Your task to perform on an android device: Open battery settings Image 0: 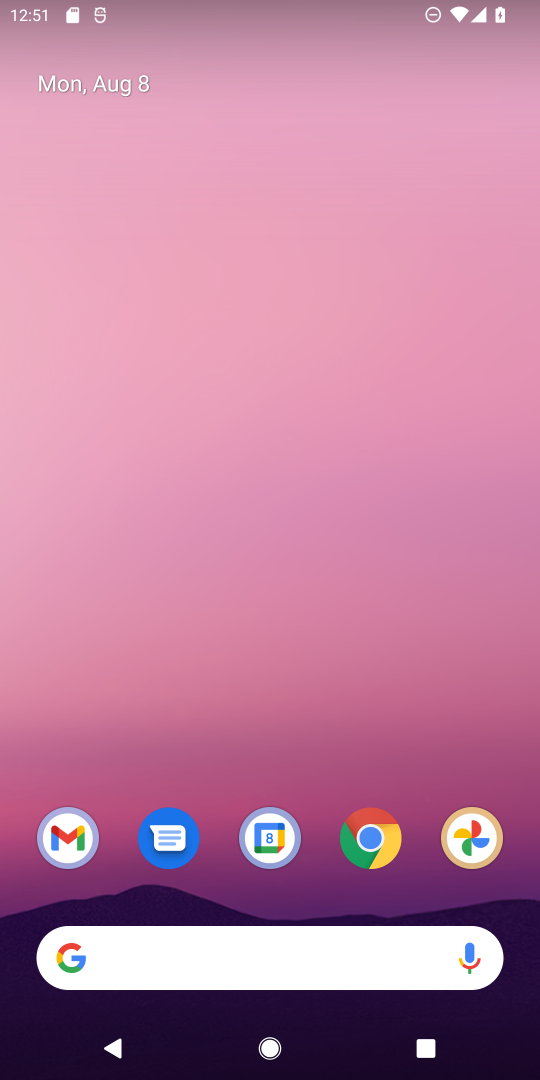
Step 0: press home button
Your task to perform on an android device: Open battery settings Image 1: 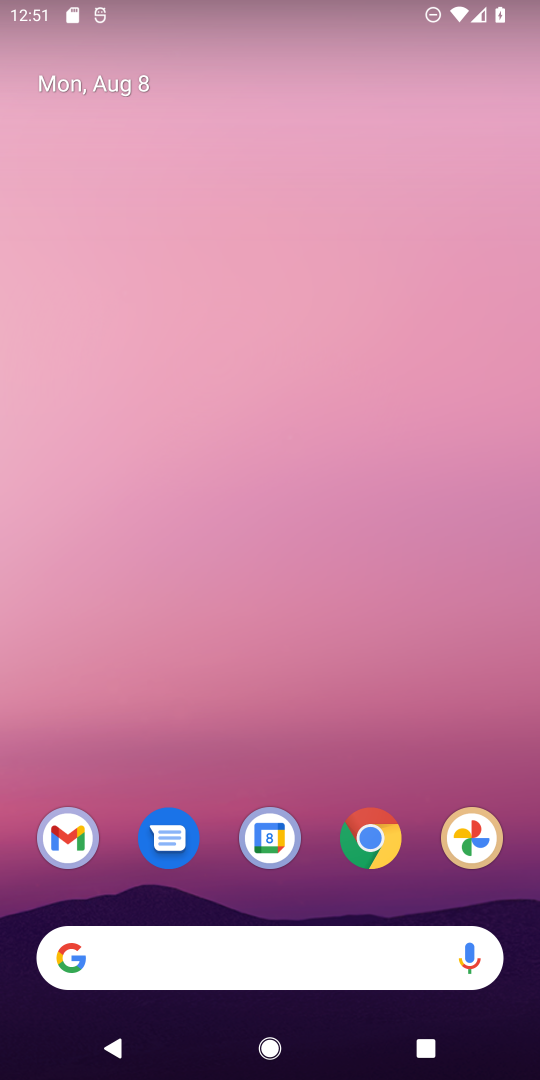
Step 1: drag from (366, 709) to (533, 148)
Your task to perform on an android device: Open battery settings Image 2: 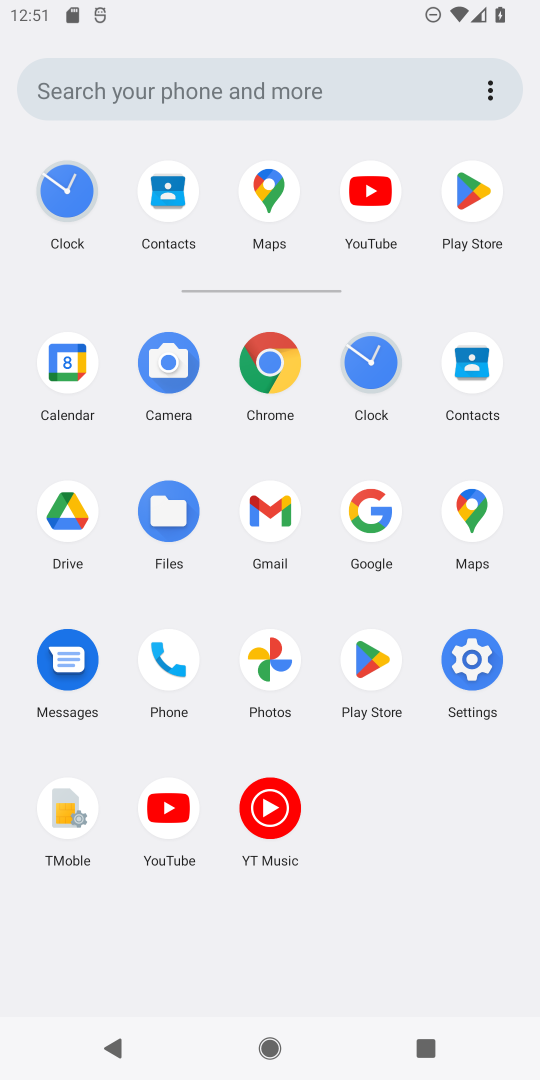
Step 2: click (488, 655)
Your task to perform on an android device: Open battery settings Image 3: 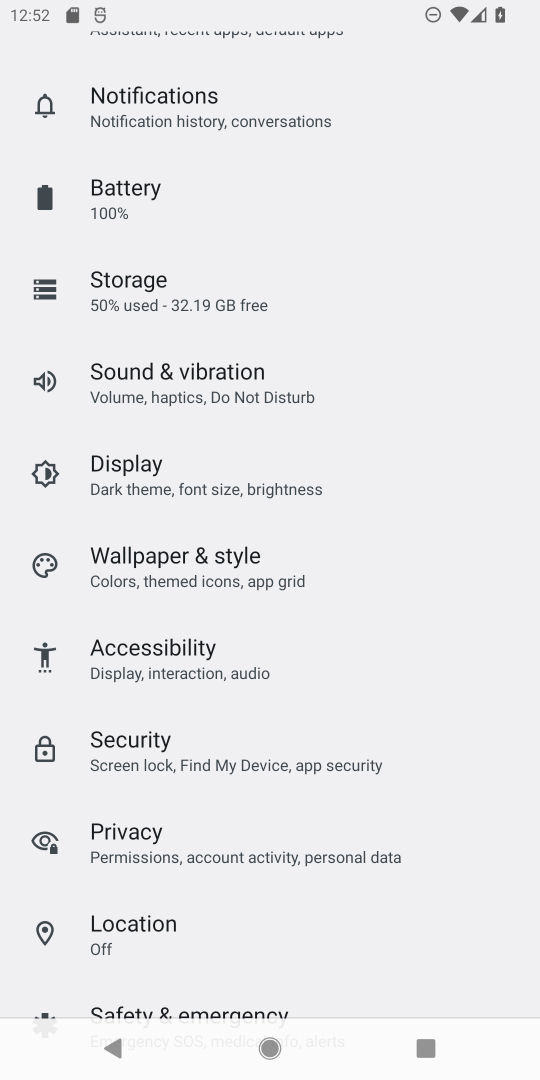
Step 3: click (188, 205)
Your task to perform on an android device: Open battery settings Image 4: 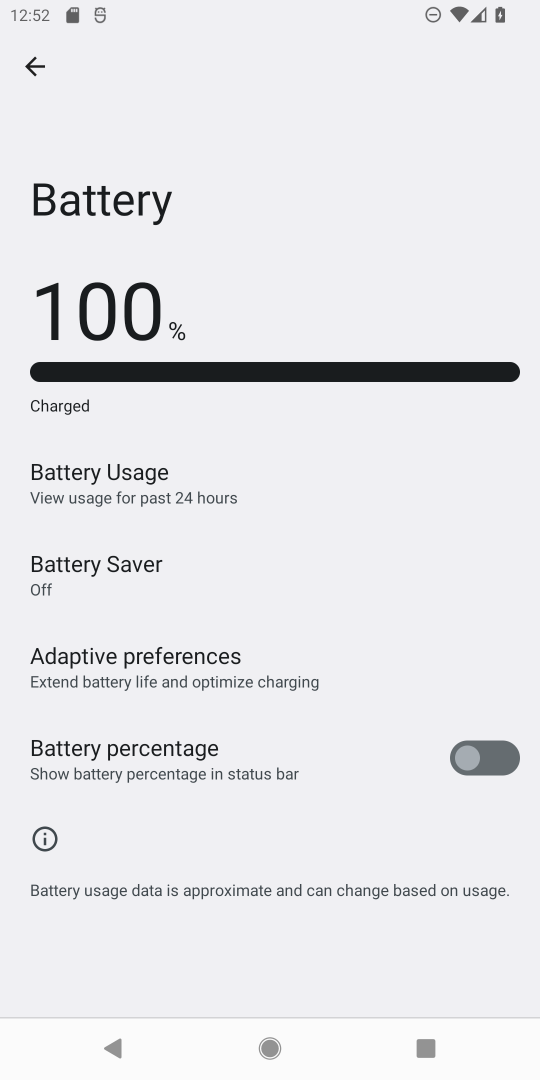
Step 4: task complete